Your task to perform on an android device: Go to wifi settings Image 0: 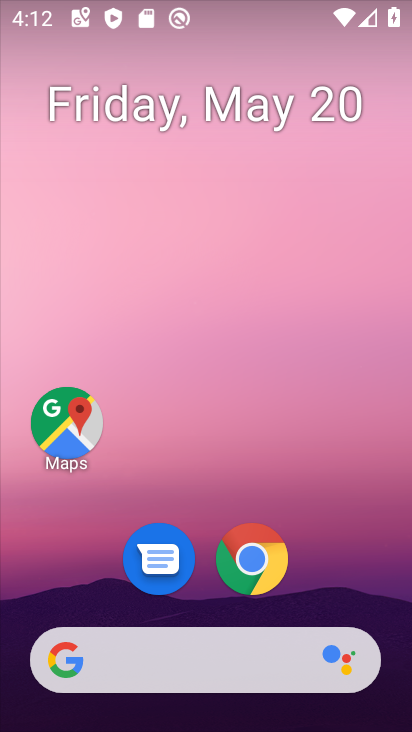
Step 0: drag from (188, 555) to (186, 232)
Your task to perform on an android device: Go to wifi settings Image 1: 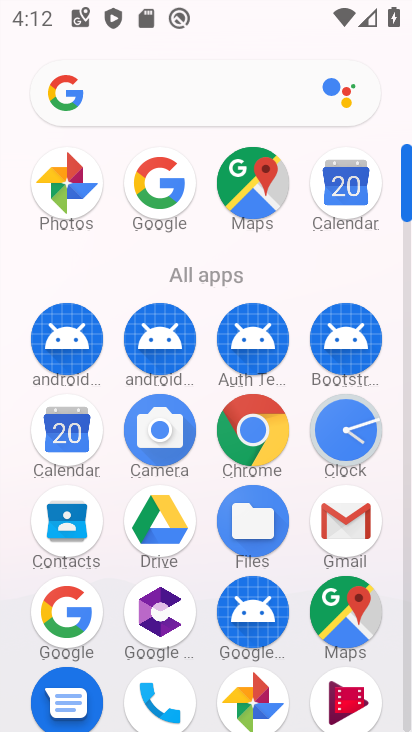
Step 1: drag from (198, 589) to (195, 239)
Your task to perform on an android device: Go to wifi settings Image 2: 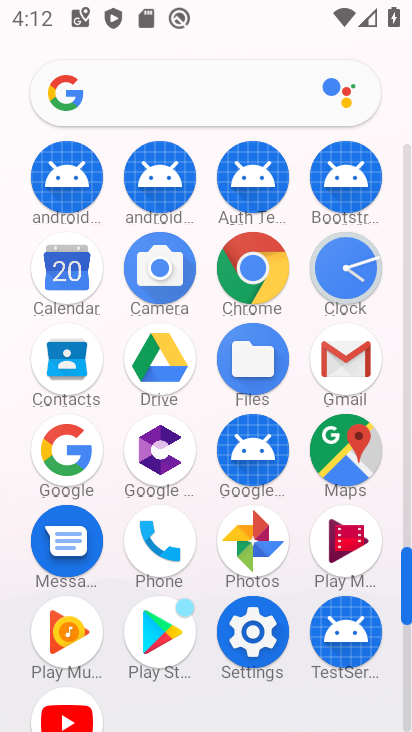
Step 2: click (261, 621)
Your task to perform on an android device: Go to wifi settings Image 3: 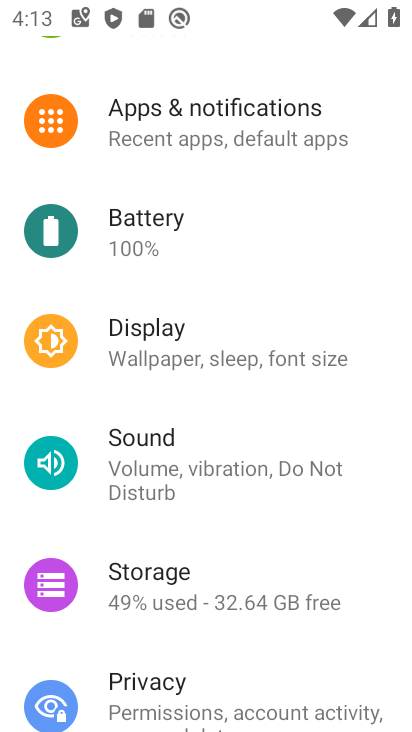
Step 3: drag from (200, 113) to (230, 518)
Your task to perform on an android device: Go to wifi settings Image 4: 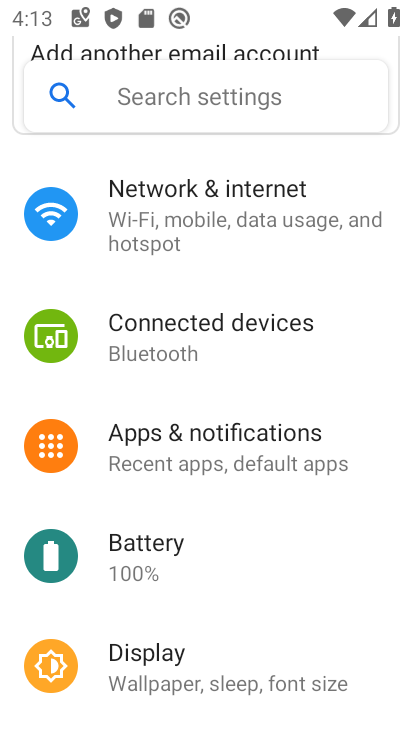
Step 4: click (174, 210)
Your task to perform on an android device: Go to wifi settings Image 5: 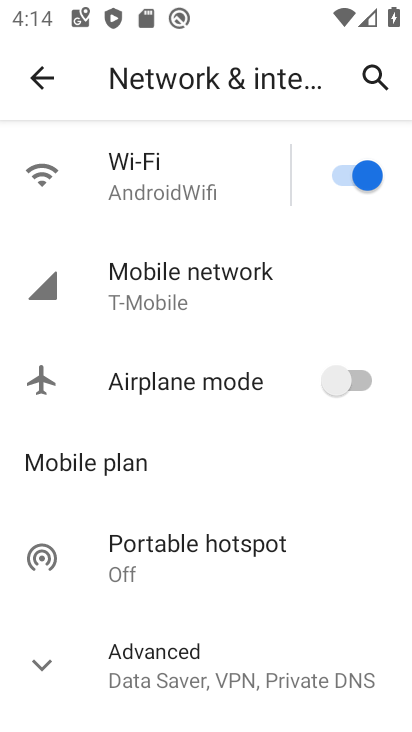
Step 5: click (157, 201)
Your task to perform on an android device: Go to wifi settings Image 6: 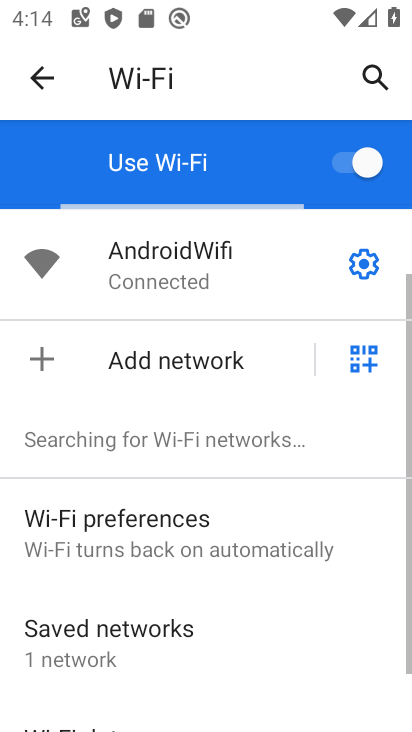
Step 6: click (359, 269)
Your task to perform on an android device: Go to wifi settings Image 7: 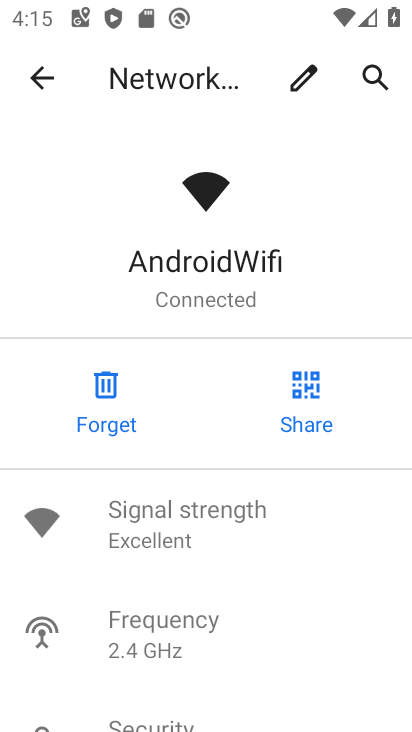
Step 7: task complete